Your task to perform on an android device: Turn off the flashlight Image 0: 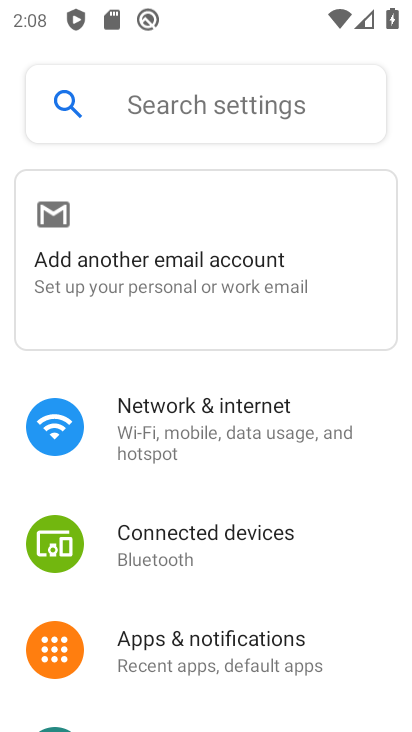
Step 0: press home button
Your task to perform on an android device: Turn off the flashlight Image 1: 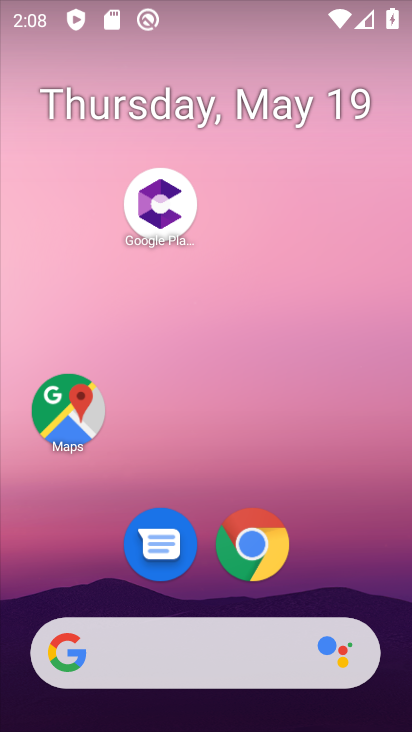
Step 1: drag from (312, 650) to (291, 234)
Your task to perform on an android device: Turn off the flashlight Image 2: 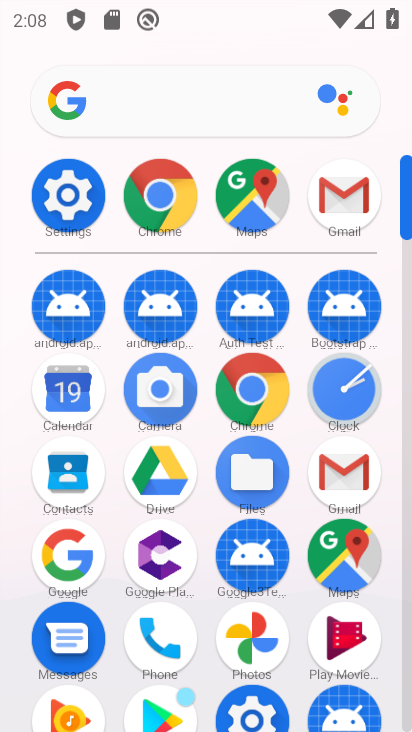
Step 2: click (97, 198)
Your task to perform on an android device: Turn off the flashlight Image 3: 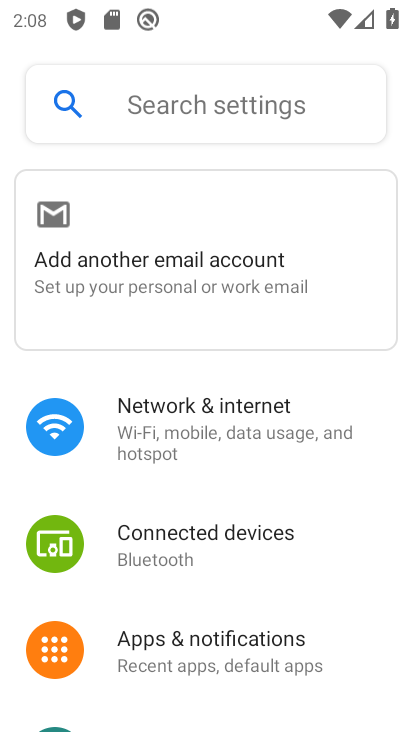
Step 3: click (170, 84)
Your task to perform on an android device: Turn off the flashlight Image 4: 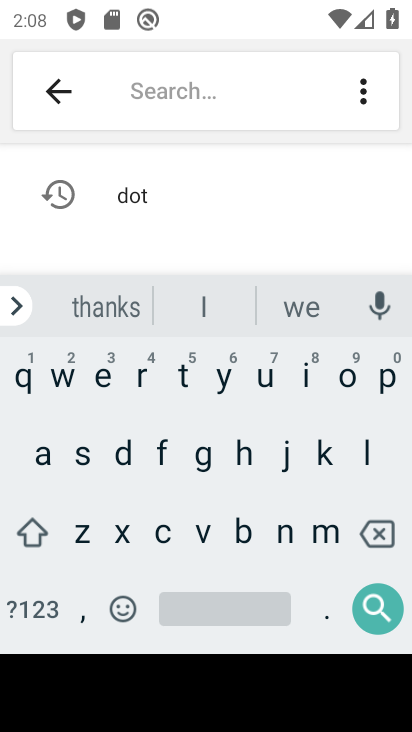
Step 4: click (162, 447)
Your task to perform on an android device: Turn off the flashlight Image 5: 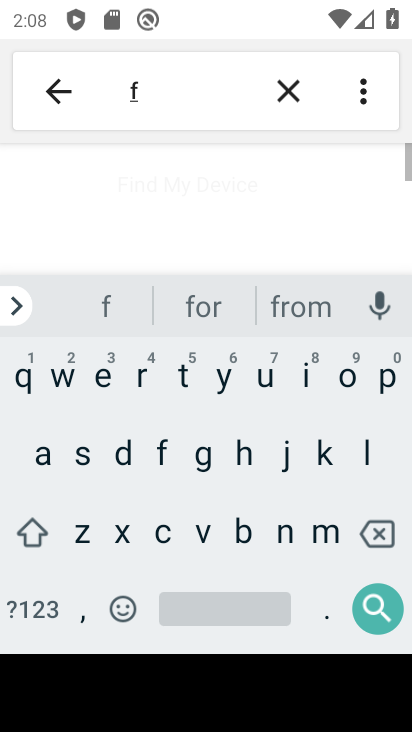
Step 5: click (374, 470)
Your task to perform on an android device: Turn off the flashlight Image 6: 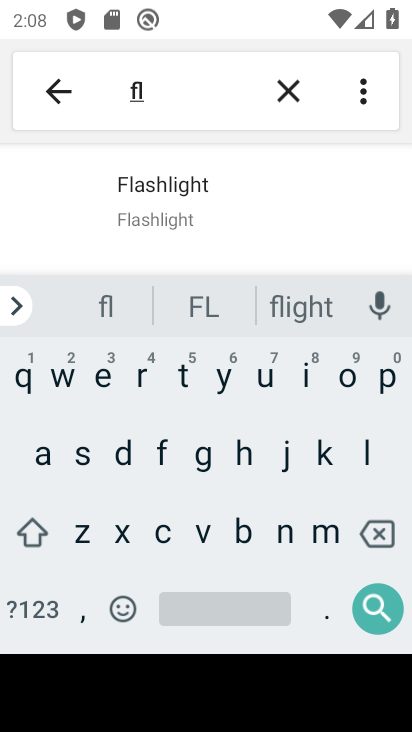
Step 6: click (177, 186)
Your task to perform on an android device: Turn off the flashlight Image 7: 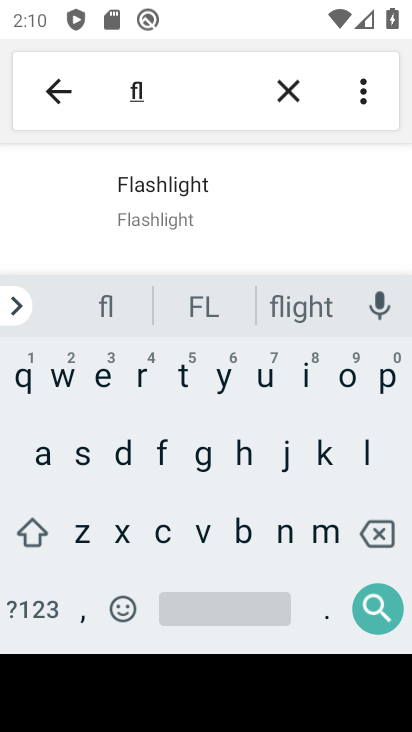
Step 7: click (163, 194)
Your task to perform on an android device: Turn off the flashlight Image 8: 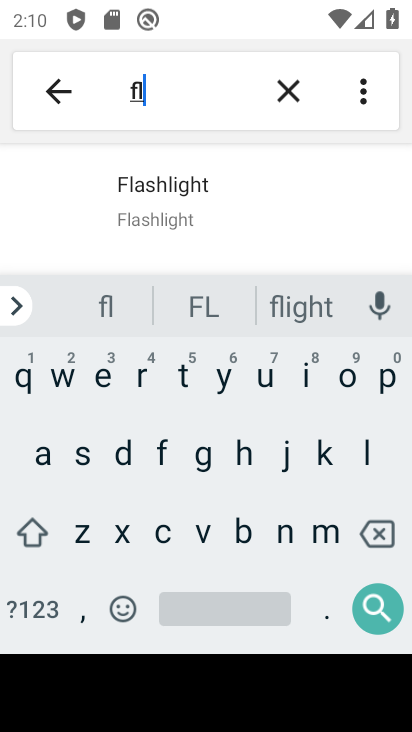
Step 8: task complete